Your task to perform on an android device: Open the calendar and show me this week's events? Image 0: 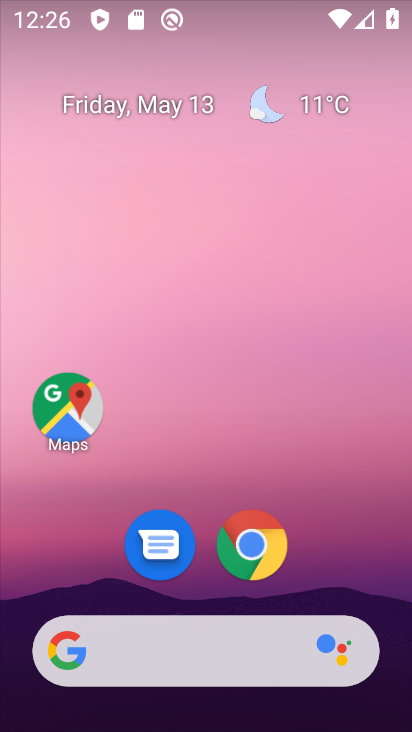
Step 0: drag from (325, 567) to (334, 111)
Your task to perform on an android device: Open the calendar and show me this week's events? Image 1: 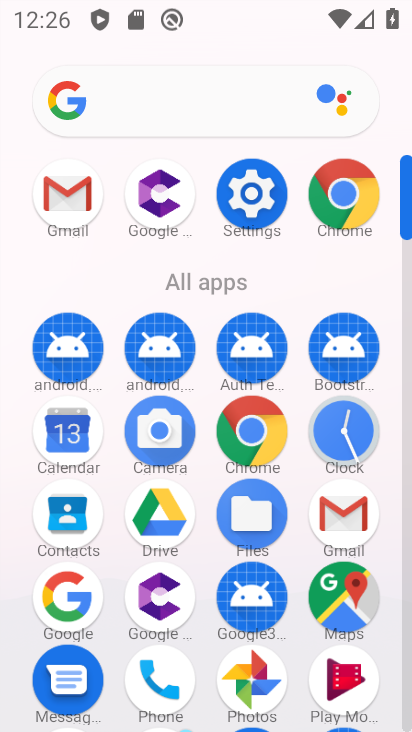
Step 1: click (70, 447)
Your task to perform on an android device: Open the calendar and show me this week's events? Image 2: 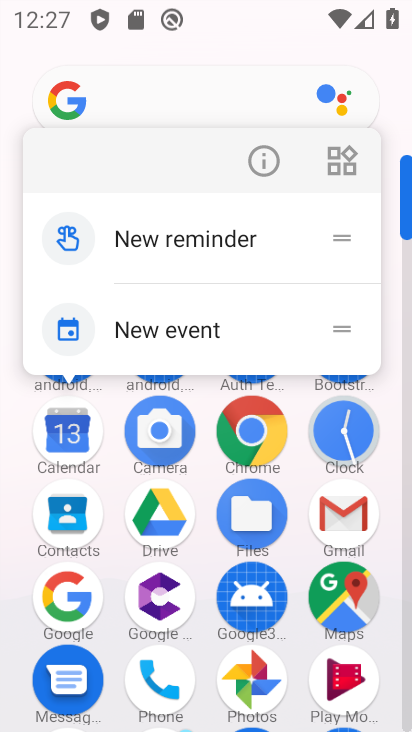
Step 2: click (70, 447)
Your task to perform on an android device: Open the calendar and show me this week's events? Image 3: 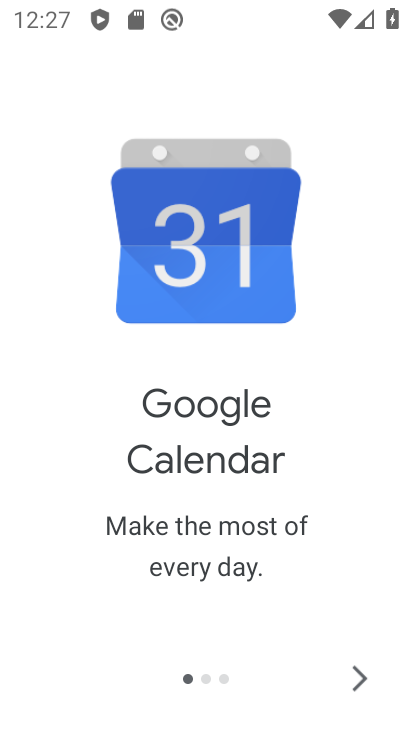
Step 3: click (367, 683)
Your task to perform on an android device: Open the calendar and show me this week's events? Image 4: 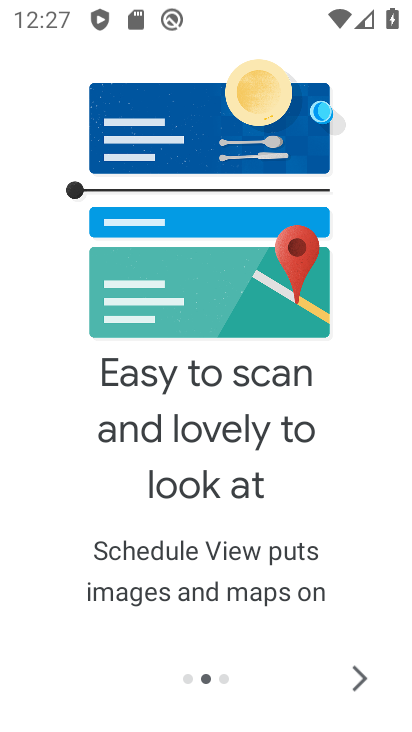
Step 4: click (351, 687)
Your task to perform on an android device: Open the calendar and show me this week's events? Image 5: 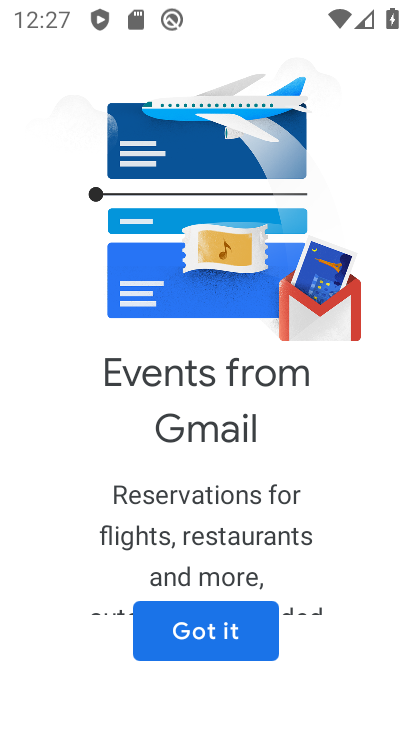
Step 5: click (351, 687)
Your task to perform on an android device: Open the calendar and show me this week's events? Image 6: 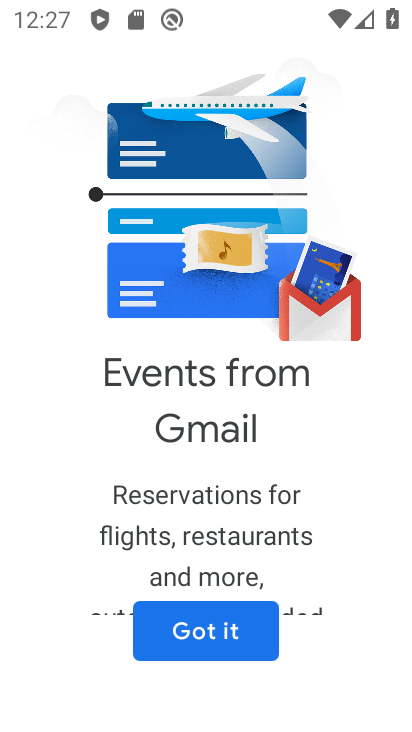
Step 6: click (189, 638)
Your task to perform on an android device: Open the calendar and show me this week's events? Image 7: 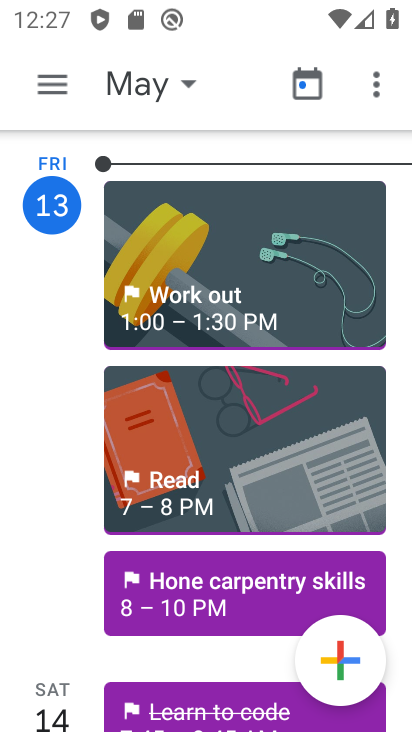
Step 7: click (135, 98)
Your task to perform on an android device: Open the calendar and show me this week's events? Image 8: 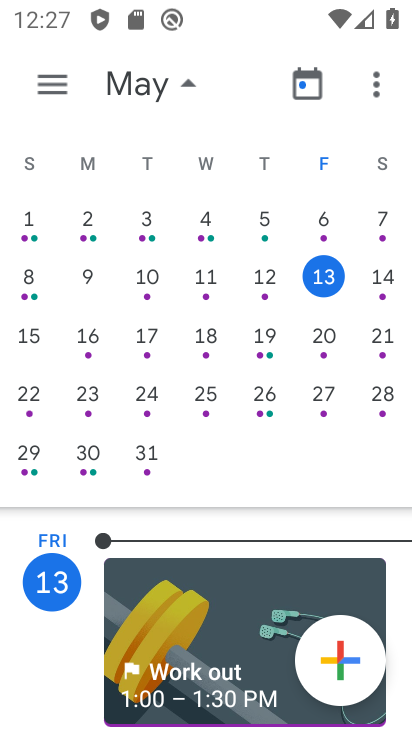
Step 8: click (378, 288)
Your task to perform on an android device: Open the calendar and show me this week's events? Image 9: 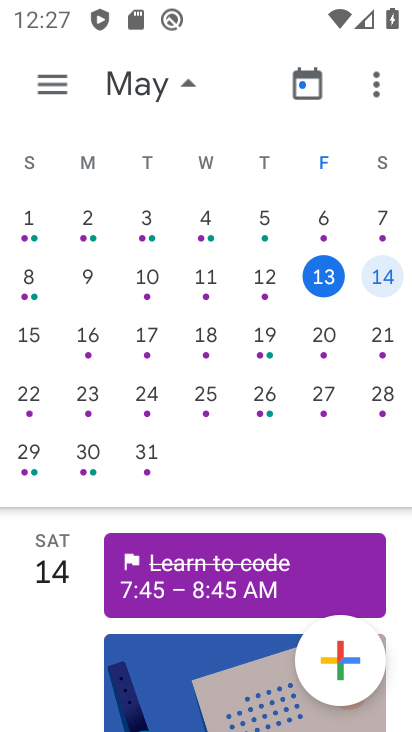
Step 9: click (30, 327)
Your task to perform on an android device: Open the calendar and show me this week's events? Image 10: 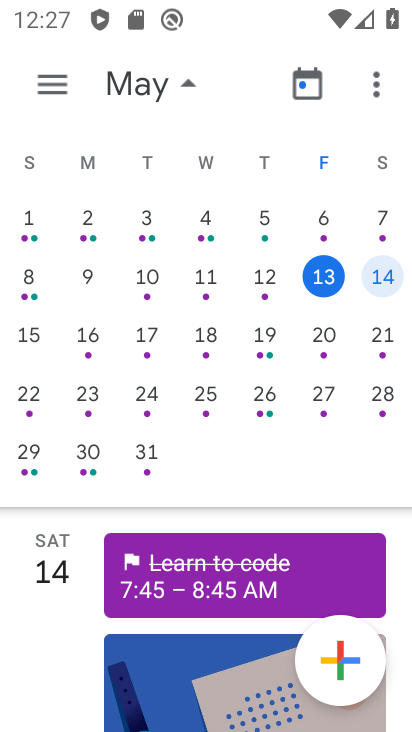
Step 10: task complete